Your task to perform on an android device: Go to network settings Image 0: 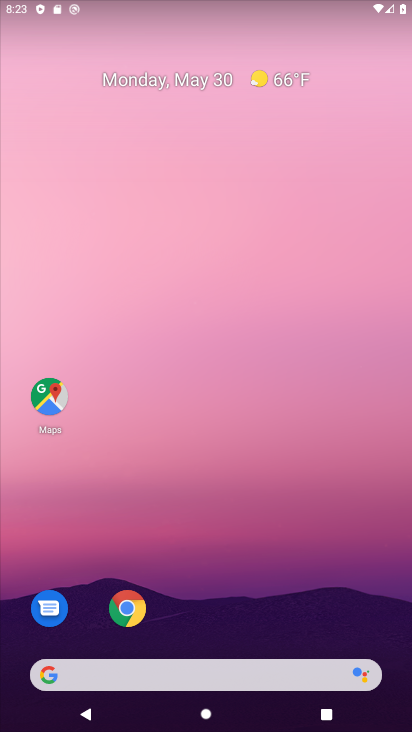
Step 0: drag from (225, 722) to (226, 110)
Your task to perform on an android device: Go to network settings Image 1: 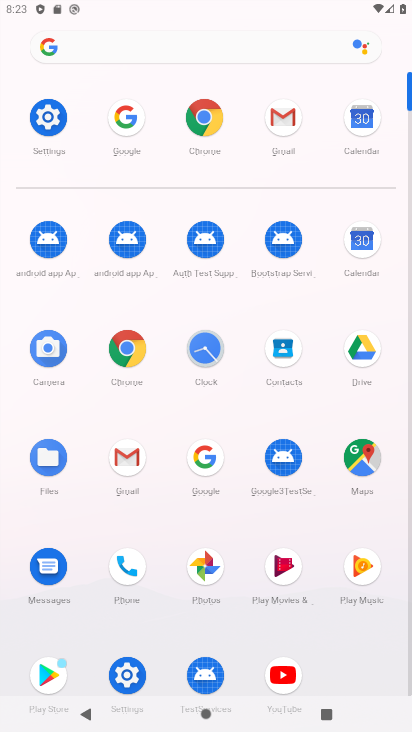
Step 1: click (52, 106)
Your task to perform on an android device: Go to network settings Image 2: 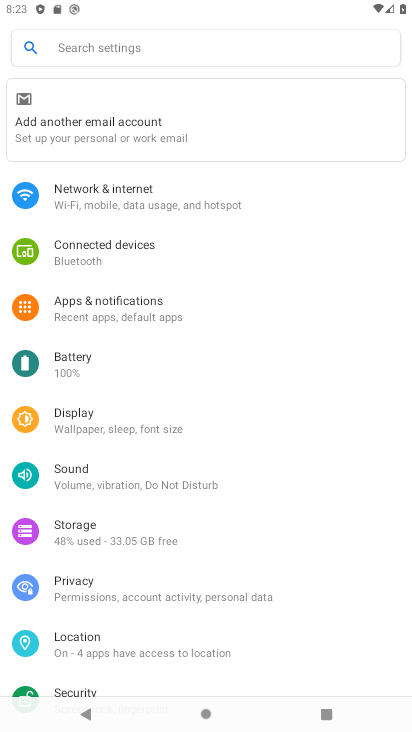
Step 2: click (82, 188)
Your task to perform on an android device: Go to network settings Image 3: 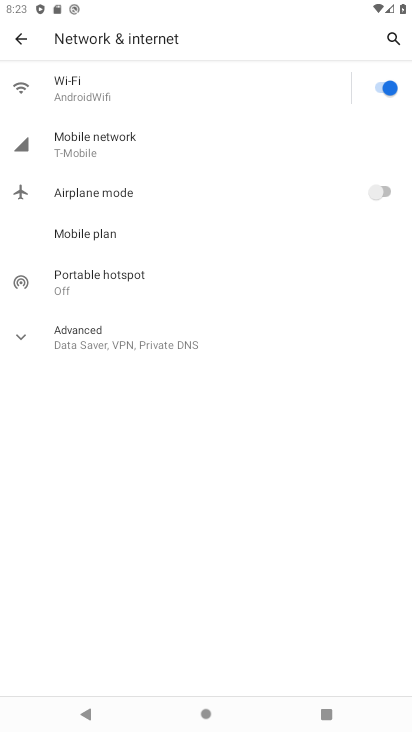
Step 3: click (85, 144)
Your task to perform on an android device: Go to network settings Image 4: 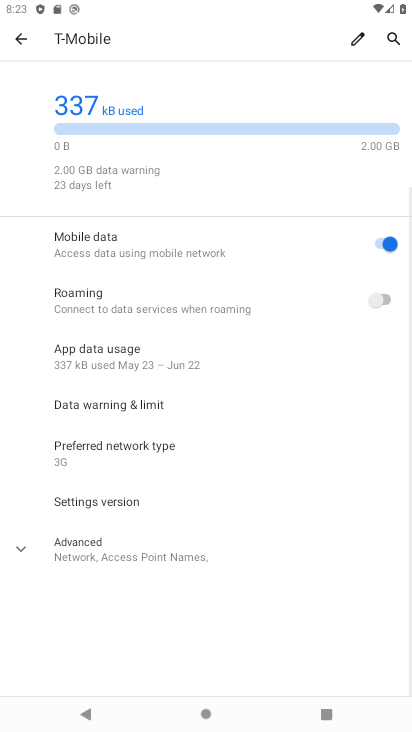
Step 4: task complete